Your task to perform on an android device: Open Chrome and go to the settings page Image 0: 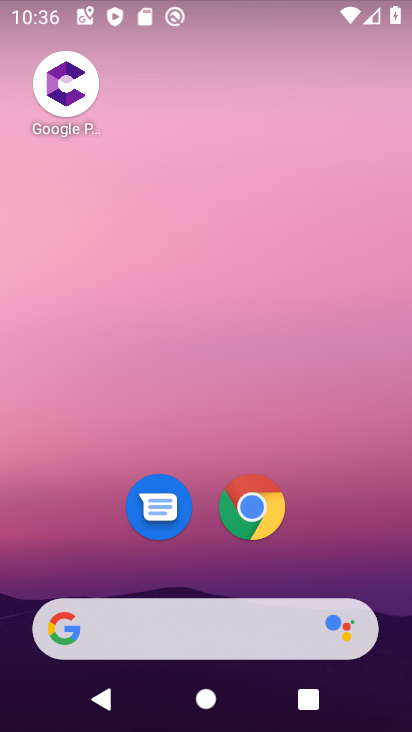
Step 0: drag from (391, 651) to (294, 35)
Your task to perform on an android device: Open Chrome and go to the settings page Image 1: 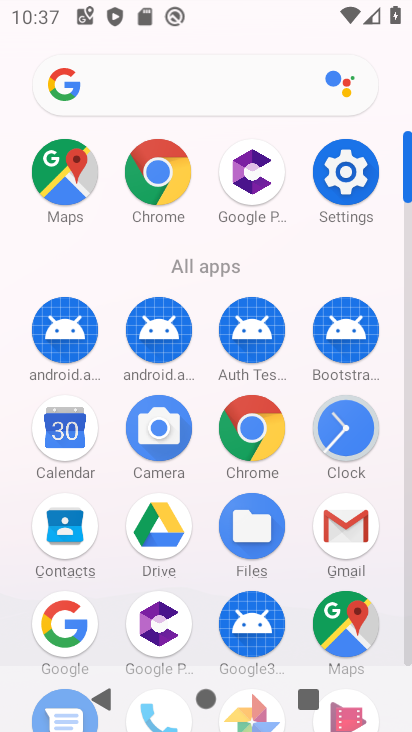
Step 1: click (347, 190)
Your task to perform on an android device: Open Chrome and go to the settings page Image 2: 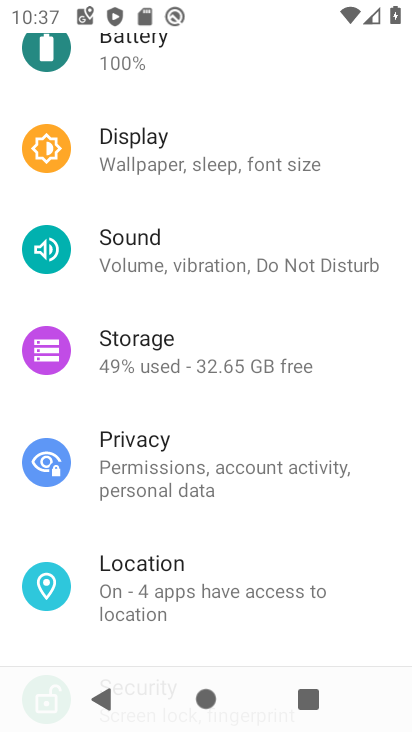
Step 2: press home button
Your task to perform on an android device: Open Chrome and go to the settings page Image 3: 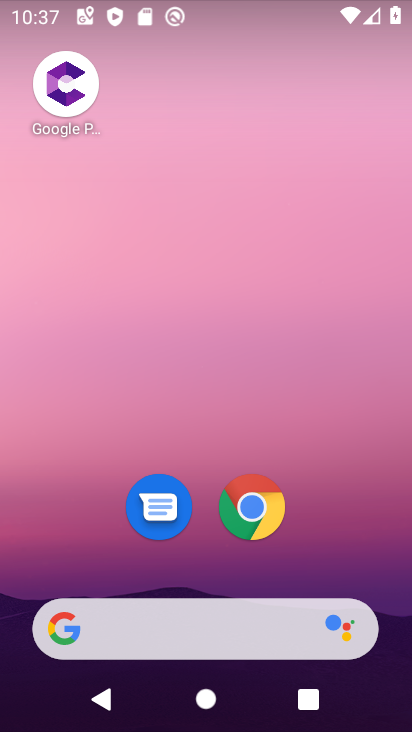
Step 3: click (253, 514)
Your task to perform on an android device: Open Chrome and go to the settings page Image 4: 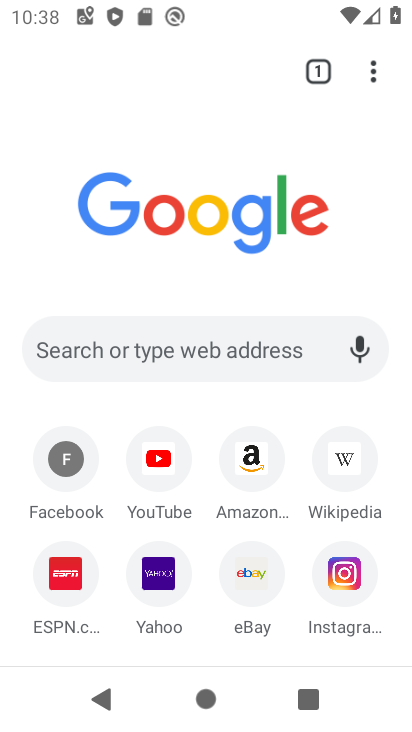
Step 4: click (376, 76)
Your task to perform on an android device: Open Chrome and go to the settings page Image 5: 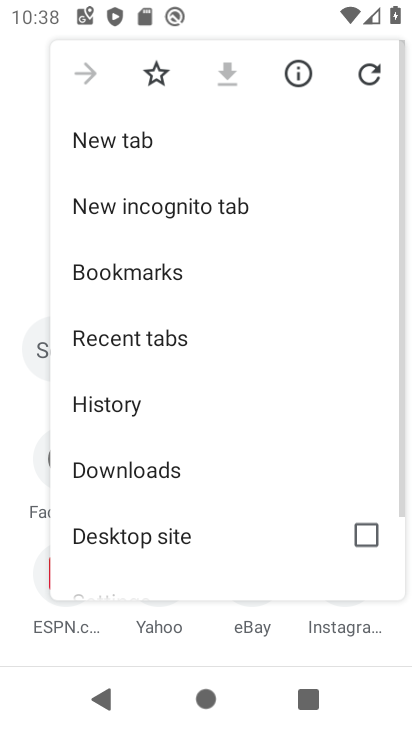
Step 5: drag from (227, 593) to (349, 30)
Your task to perform on an android device: Open Chrome and go to the settings page Image 6: 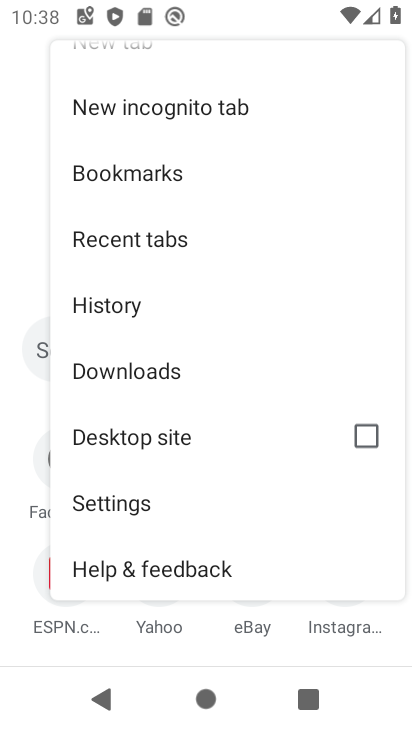
Step 6: click (174, 498)
Your task to perform on an android device: Open Chrome and go to the settings page Image 7: 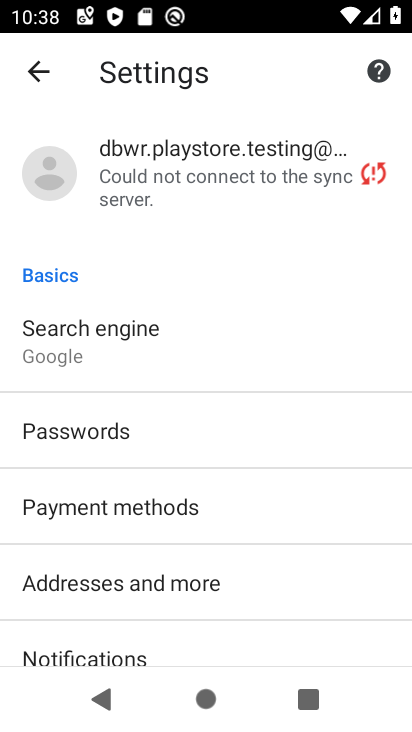
Step 7: task complete